Your task to perform on an android device: turn off location Image 0: 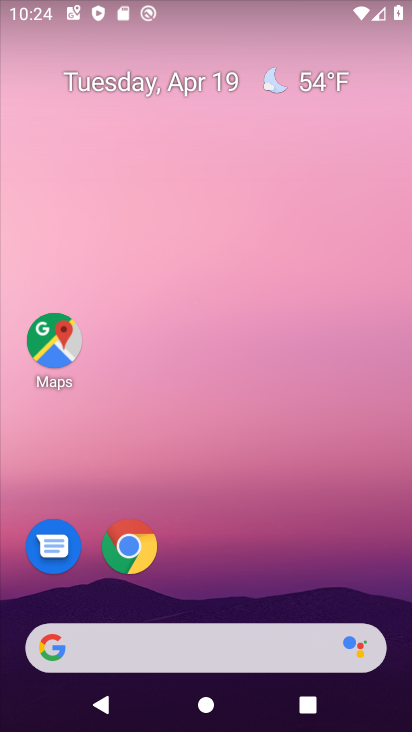
Step 0: drag from (242, 681) to (290, 26)
Your task to perform on an android device: turn off location Image 1: 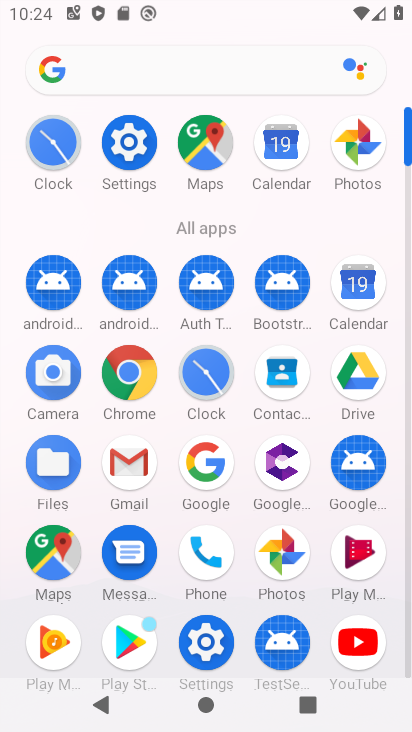
Step 1: click (137, 171)
Your task to perform on an android device: turn off location Image 2: 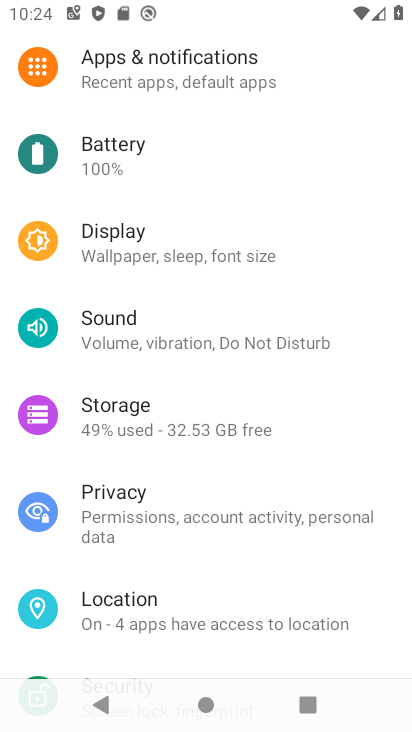
Step 2: click (215, 605)
Your task to perform on an android device: turn off location Image 3: 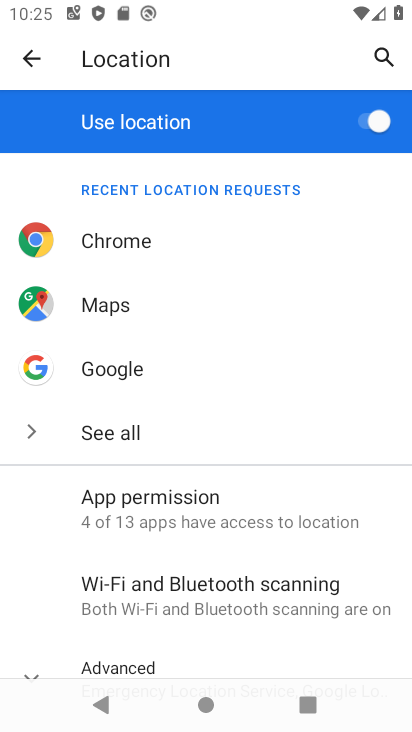
Step 3: click (380, 124)
Your task to perform on an android device: turn off location Image 4: 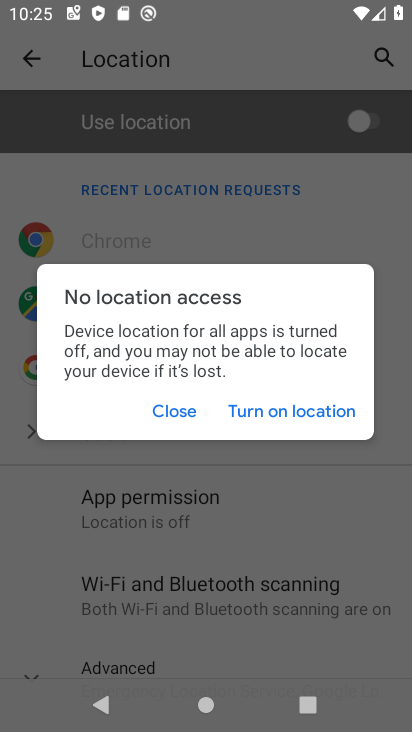
Step 4: task complete